Your task to perform on an android device: visit the assistant section in the google photos Image 0: 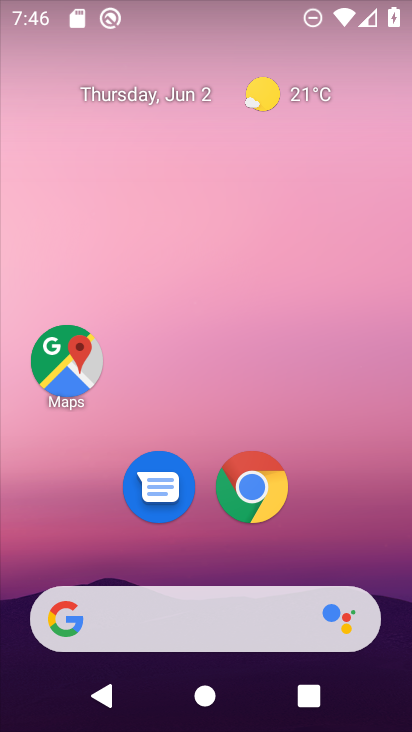
Step 0: drag from (210, 366) to (224, 53)
Your task to perform on an android device: visit the assistant section in the google photos Image 1: 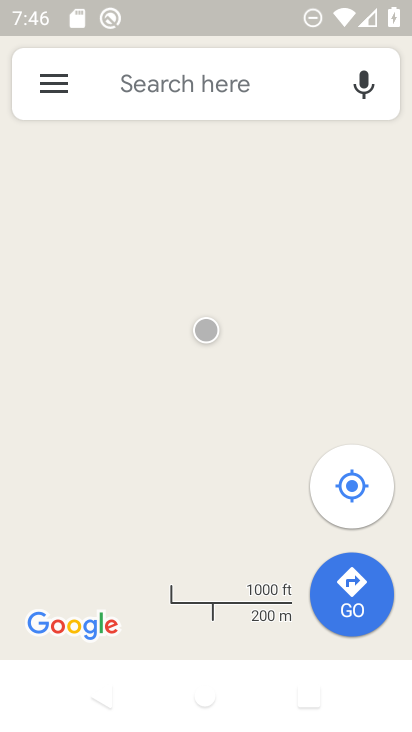
Step 1: press home button
Your task to perform on an android device: visit the assistant section in the google photos Image 2: 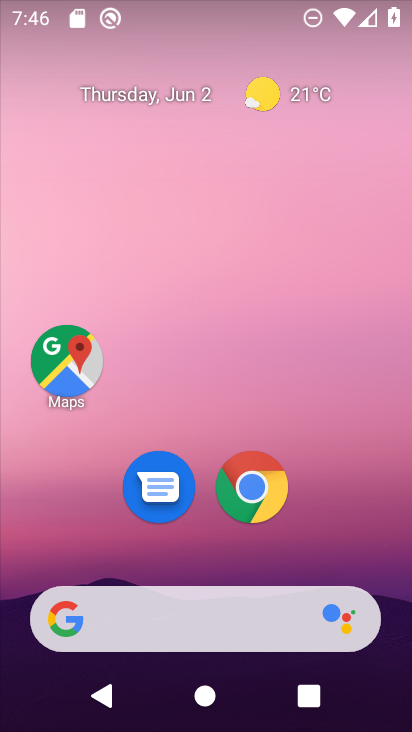
Step 2: drag from (203, 565) to (111, 16)
Your task to perform on an android device: visit the assistant section in the google photos Image 3: 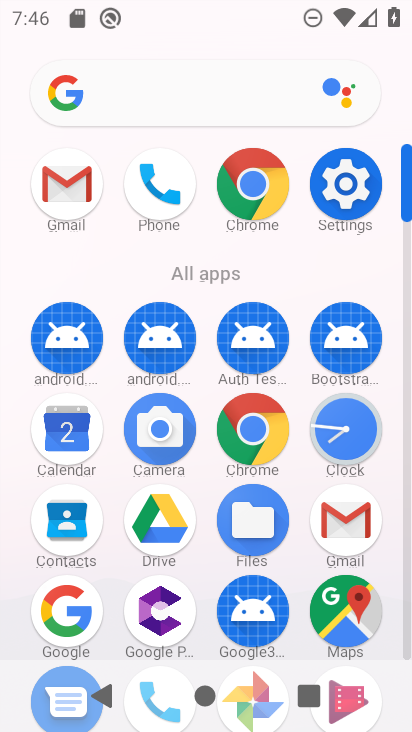
Step 3: drag from (190, 560) to (193, 137)
Your task to perform on an android device: visit the assistant section in the google photos Image 4: 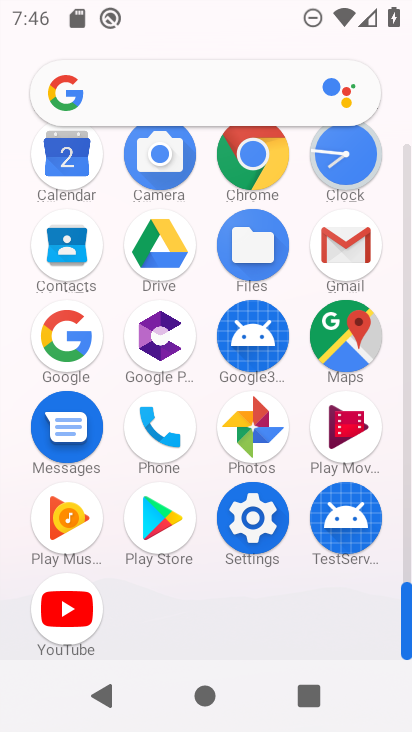
Step 4: click (246, 418)
Your task to perform on an android device: visit the assistant section in the google photos Image 5: 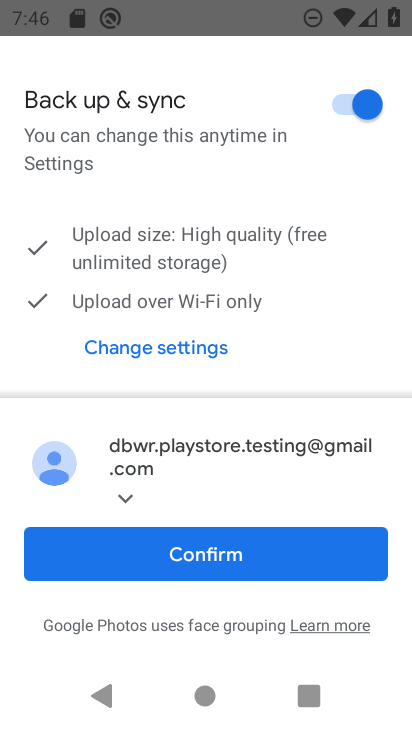
Step 5: click (184, 544)
Your task to perform on an android device: visit the assistant section in the google photos Image 6: 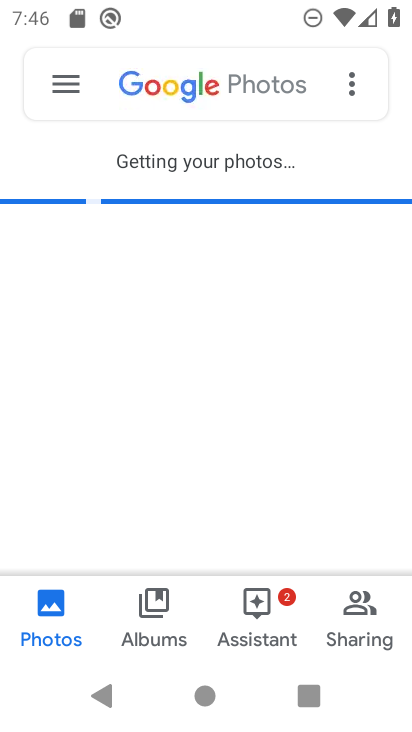
Step 6: click (236, 634)
Your task to perform on an android device: visit the assistant section in the google photos Image 7: 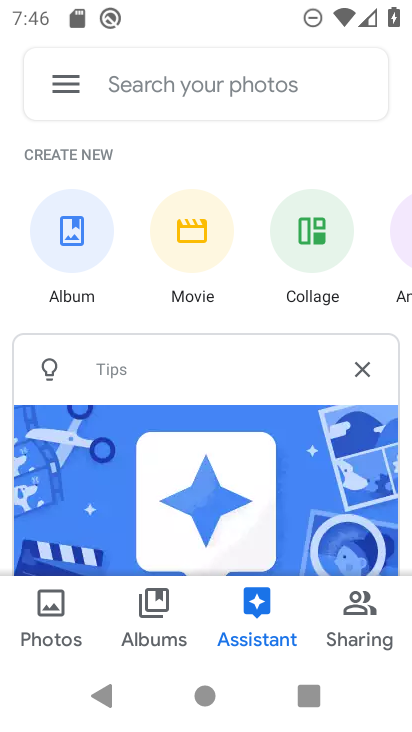
Step 7: task complete